Your task to perform on an android device: change the clock display to digital Image 0: 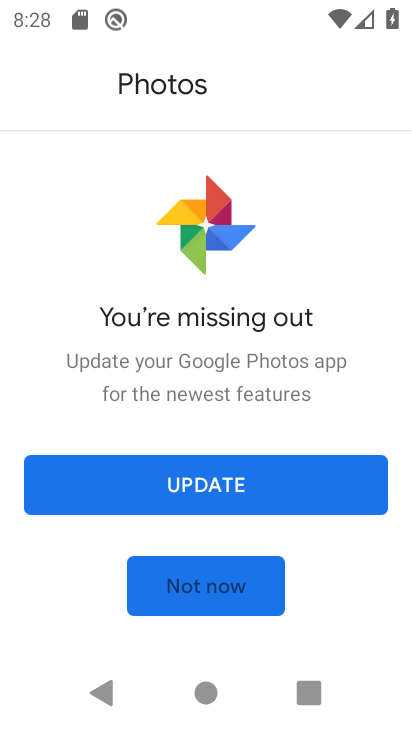
Step 0: press home button
Your task to perform on an android device: change the clock display to digital Image 1: 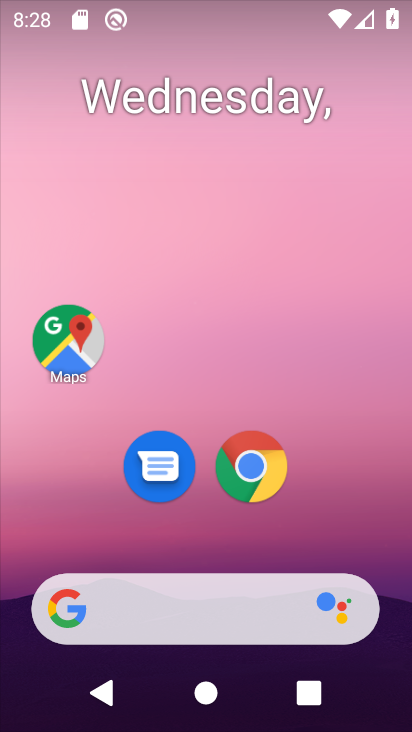
Step 1: drag from (245, 728) to (252, 176)
Your task to perform on an android device: change the clock display to digital Image 2: 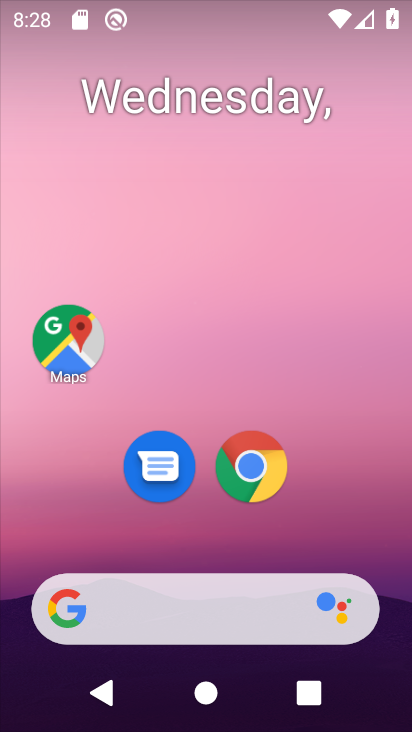
Step 2: drag from (247, 719) to (272, 151)
Your task to perform on an android device: change the clock display to digital Image 3: 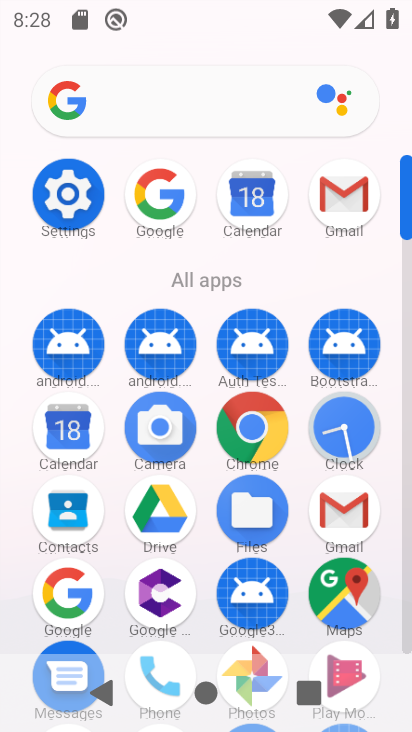
Step 3: click (345, 428)
Your task to perform on an android device: change the clock display to digital Image 4: 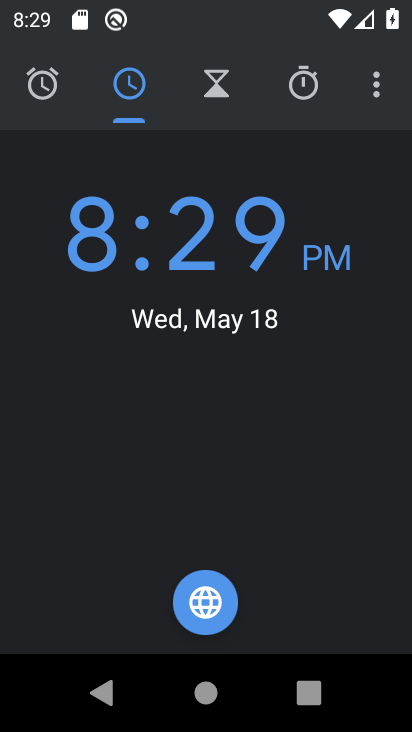
Step 4: click (375, 99)
Your task to perform on an android device: change the clock display to digital Image 5: 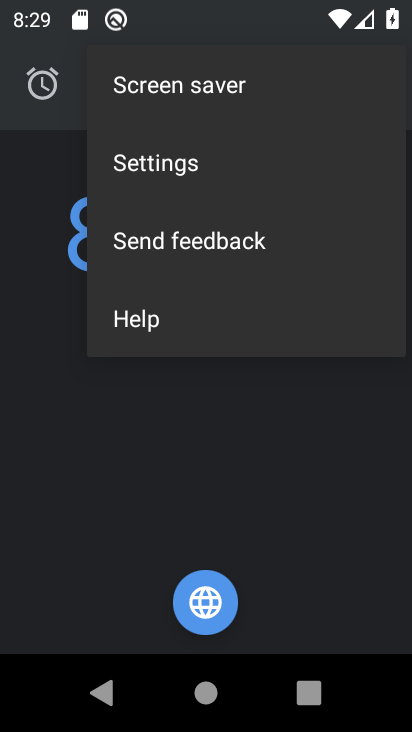
Step 5: click (177, 163)
Your task to perform on an android device: change the clock display to digital Image 6: 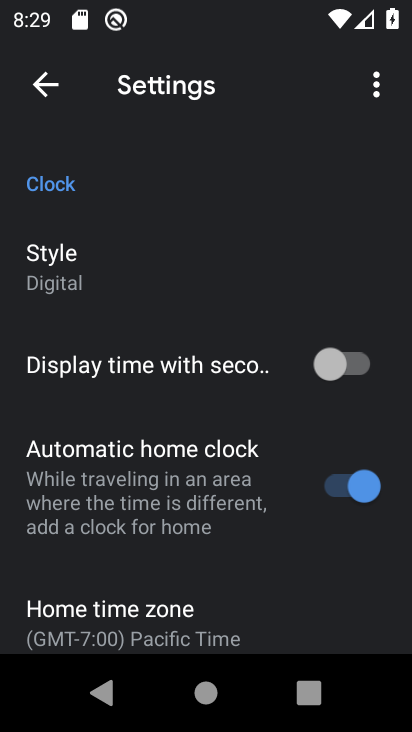
Step 6: task complete